Your task to perform on an android device: delete location history Image 0: 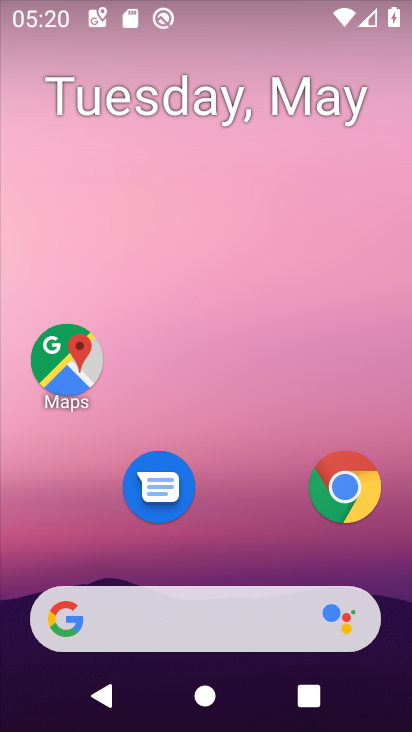
Step 0: drag from (225, 547) to (301, 84)
Your task to perform on an android device: delete location history Image 1: 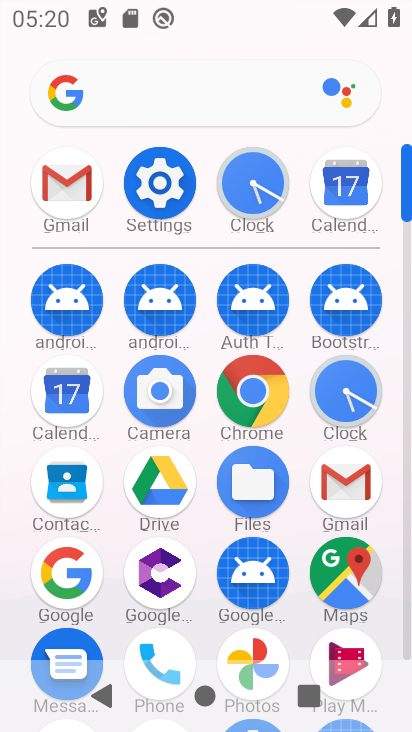
Step 1: click (163, 210)
Your task to perform on an android device: delete location history Image 2: 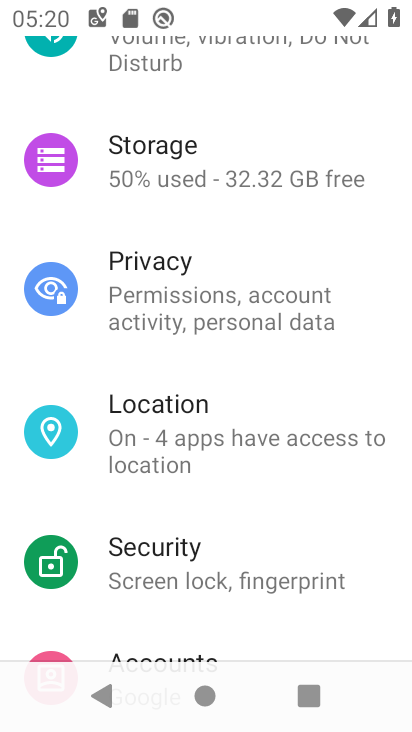
Step 2: click (185, 425)
Your task to perform on an android device: delete location history Image 3: 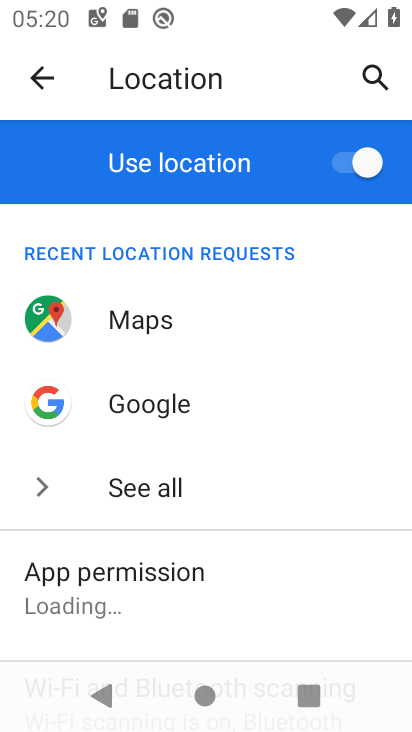
Step 3: drag from (195, 585) to (223, 158)
Your task to perform on an android device: delete location history Image 4: 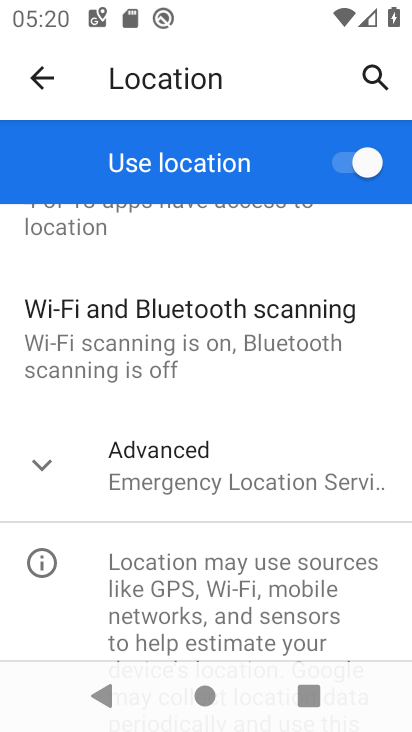
Step 4: click (193, 475)
Your task to perform on an android device: delete location history Image 5: 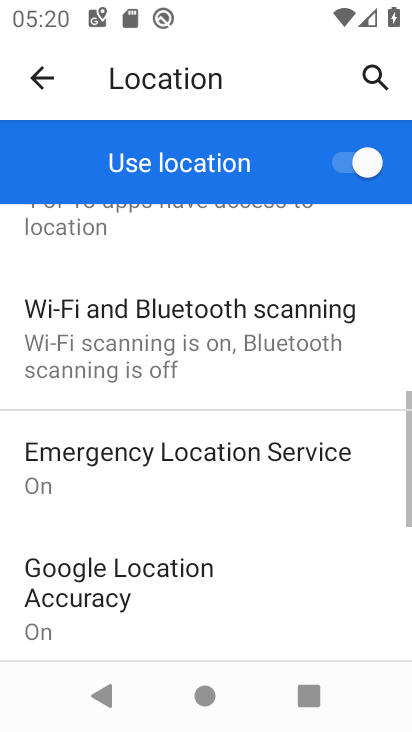
Step 5: drag from (190, 552) to (217, 296)
Your task to perform on an android device: delete location history Image 6: 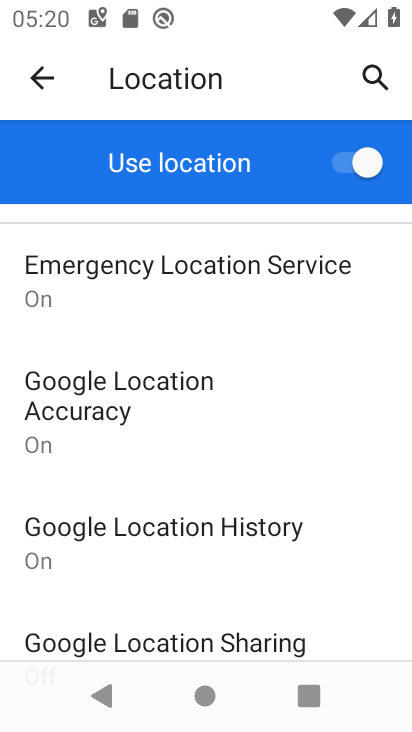
Step 6: click (208, 567)
Your task to perform on an android device: delete location history Image 7: 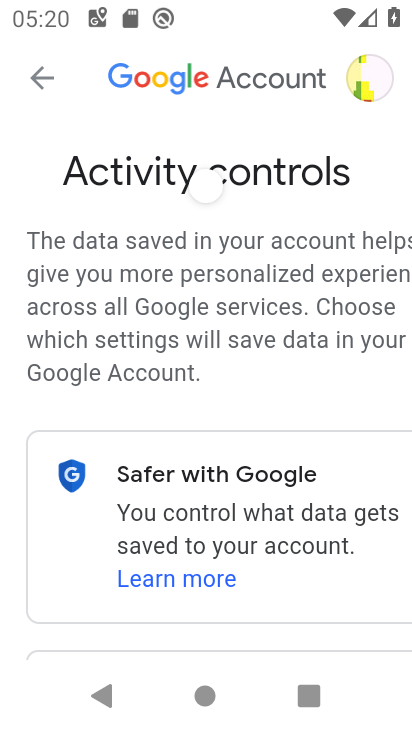
Step 7: drag from (200, 534) to (225, 102)
Your task to perform on an android device: delete location history Image 8: 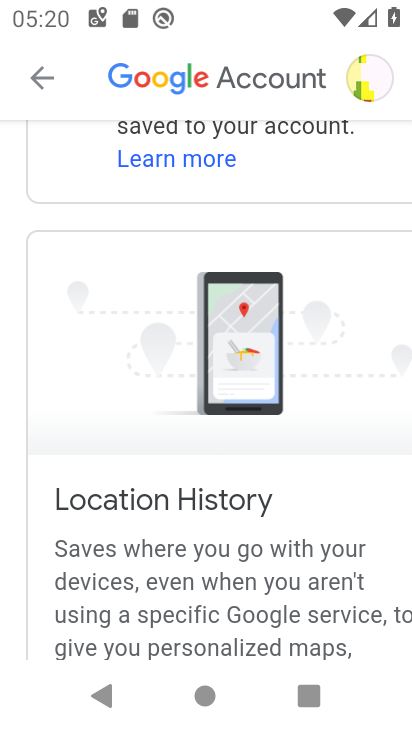
Step 8: drag from (258, 537) to (292, 110)
Your task to perform on an android device: delete location history Image 9: 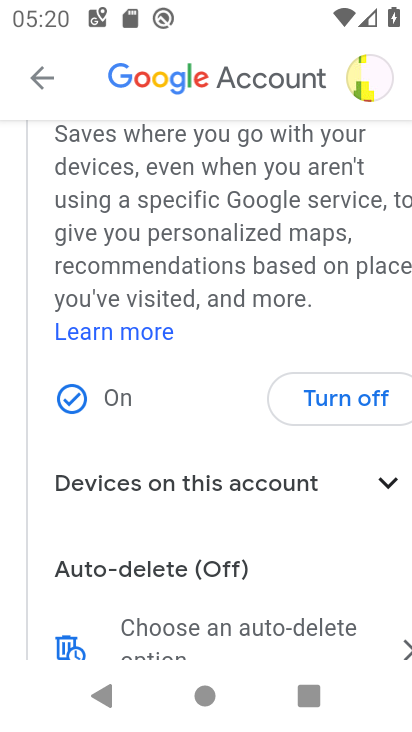
Step 9: click (241, 576)
Your task to perform on an android device: delete location history Image 10: 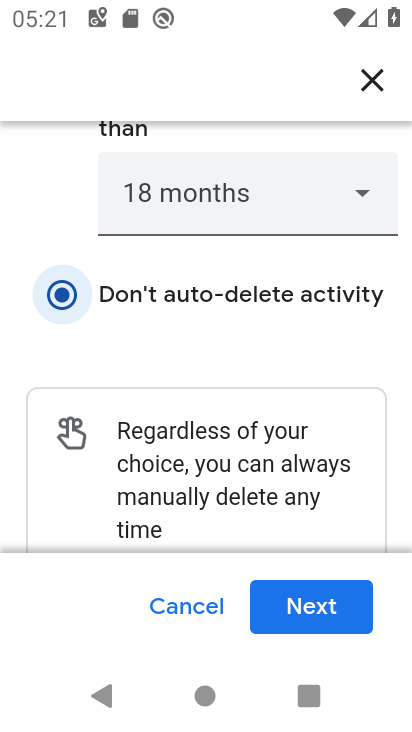
Step 10: click (92, 485)
Your task to perform on an android device: delete location history Image 11: 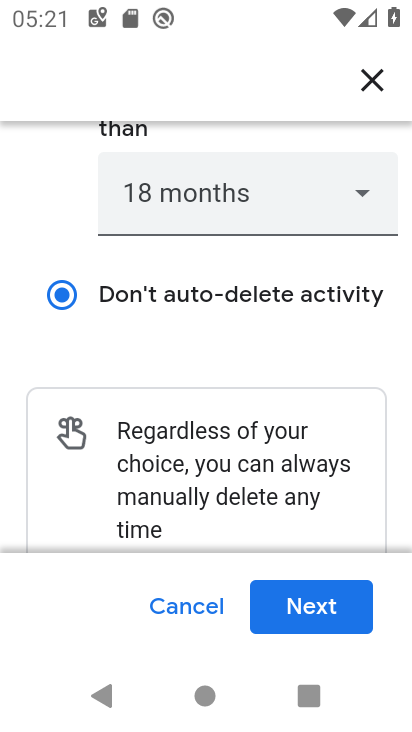
Step 11: drag from (92, 477) to (120, 21)
Your task to perform on an android device: delete location history Image 12: 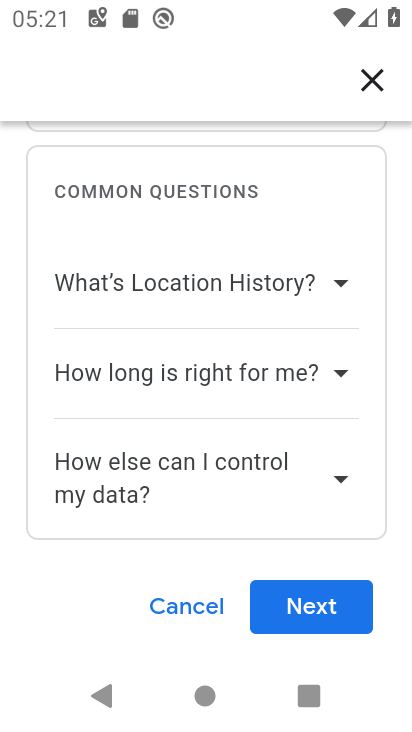
Step 12: click (291, 627)
Your task to perform on an android device: delete location history Image 13: 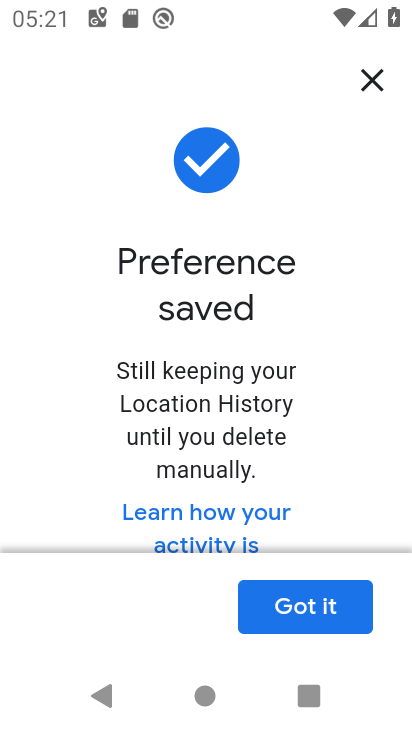
Step 13: click (318, 601)
Your task to perform on an android device: delete location history Image 14: 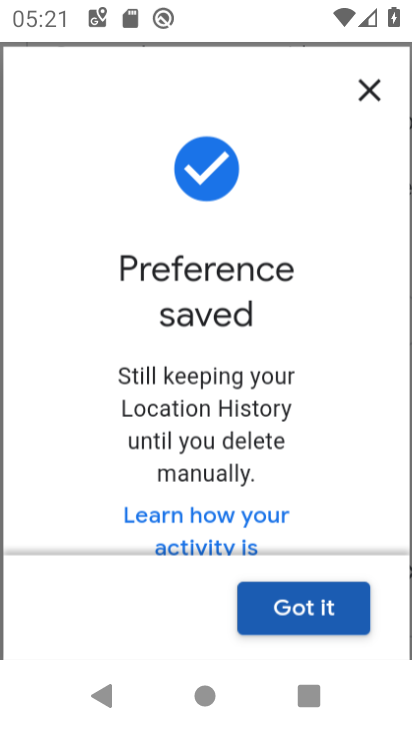
Step 14: task complete